Your task to perform on an android device: turn on location history Image 0: 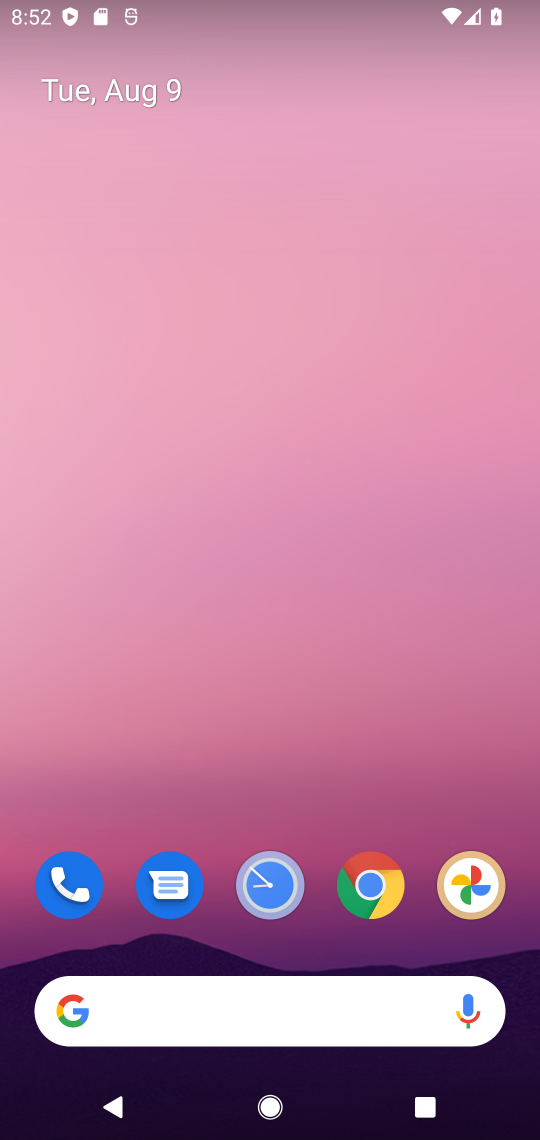
Step 0: press home button
Your task to perform on an android device: turn on location history Image 1: 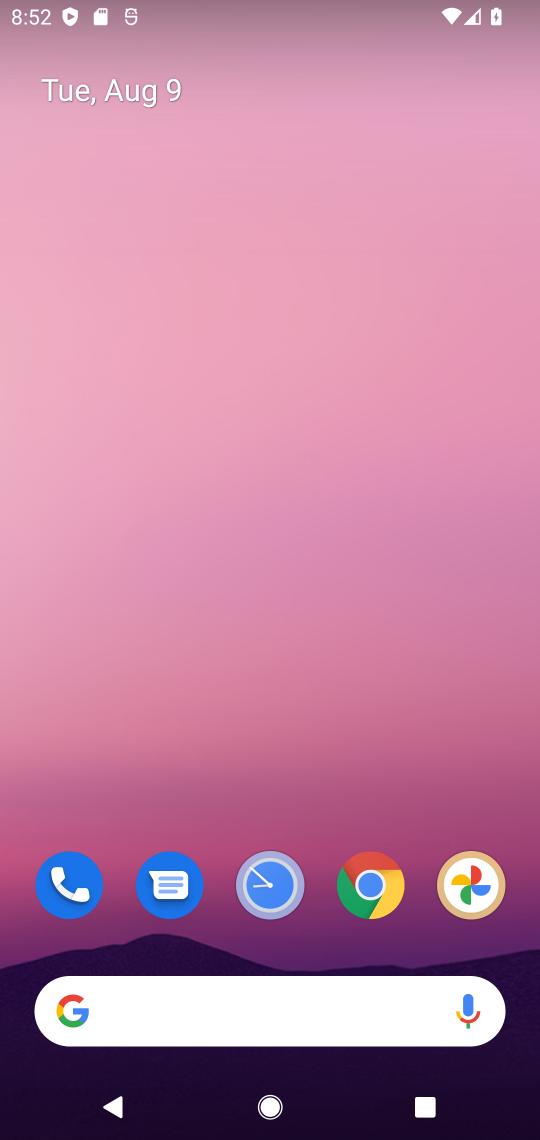
Step 1: drag from (333, 919) to (363, 180)
Your task to perform on an android device: turn on location history Image 2: 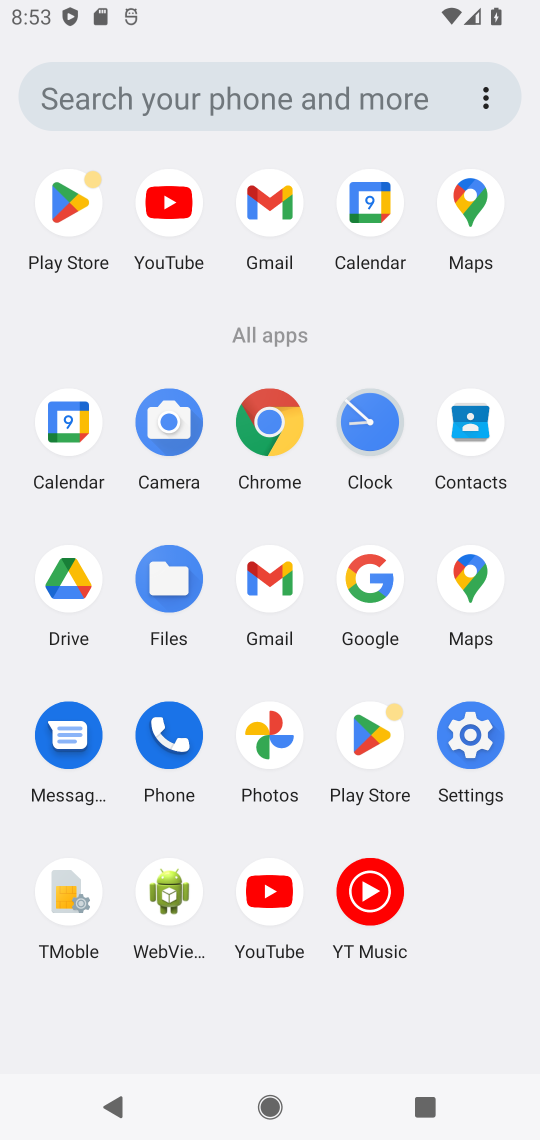
Step 2: click (466, 743)
Your task to perform on an android device: turn on location history Image 3: 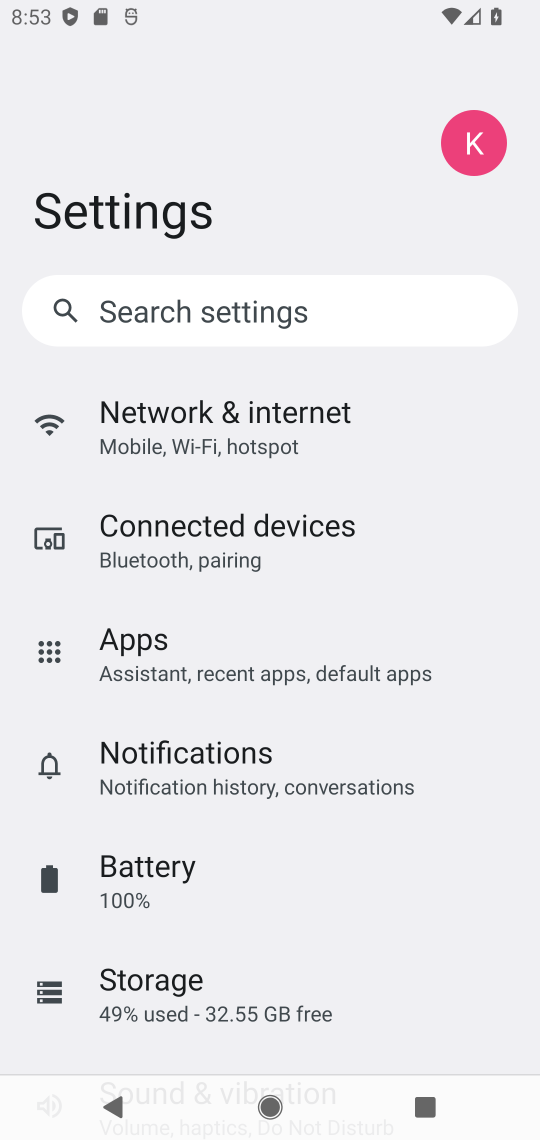
Step 3: drag from (262, 978) to (270, 345)
Your task to perform on an android device: turn on location history Image 4: 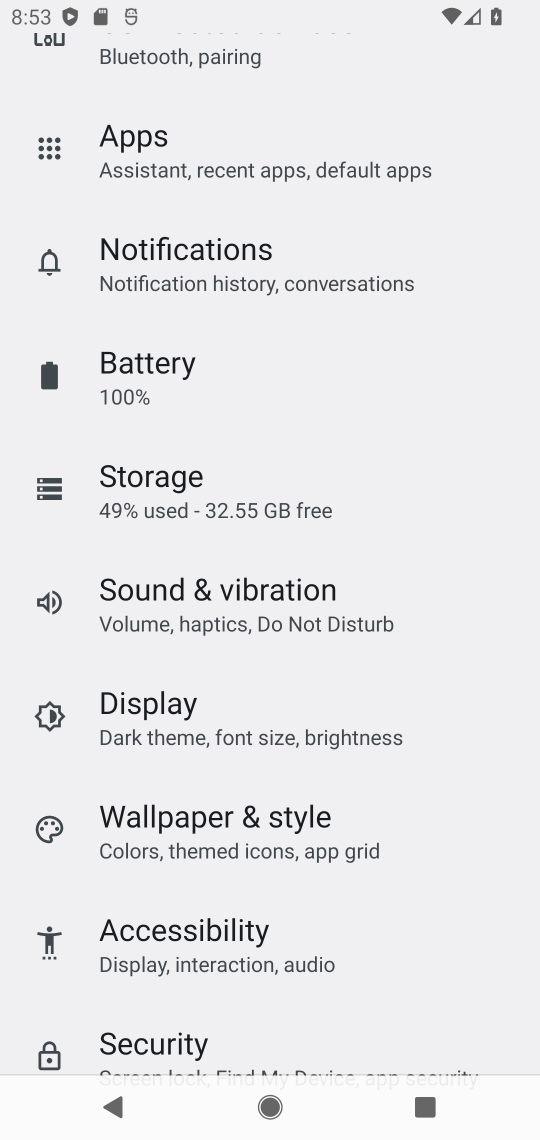
Step 4: drag from (262, 999) to (285, 317)
Your task to perform on an android device: turn on location history Image 5: 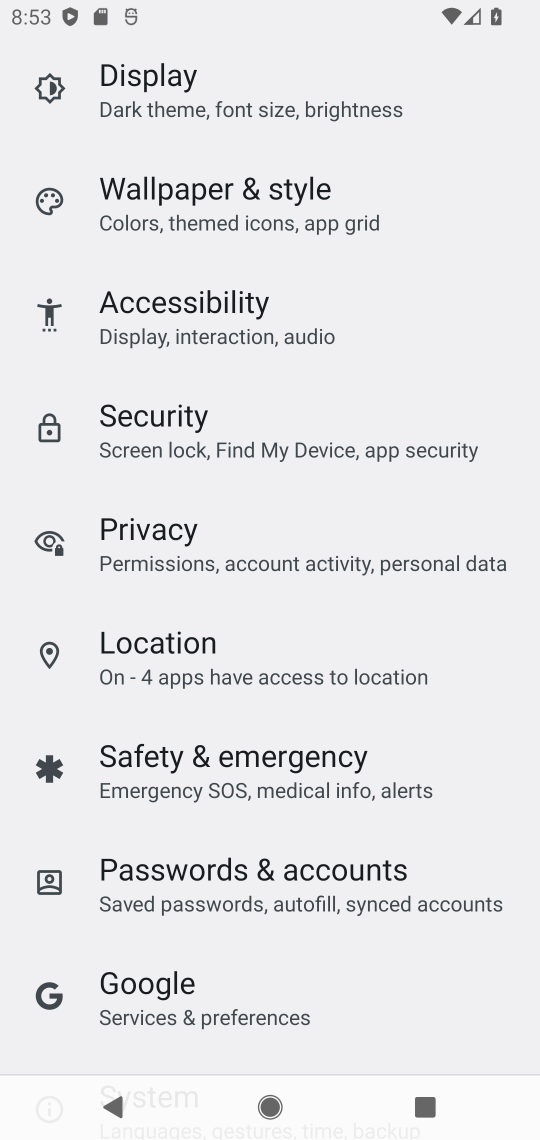
Step 5: click (233, 638)
Your task to perform on an android device: turn on location history Image 6: 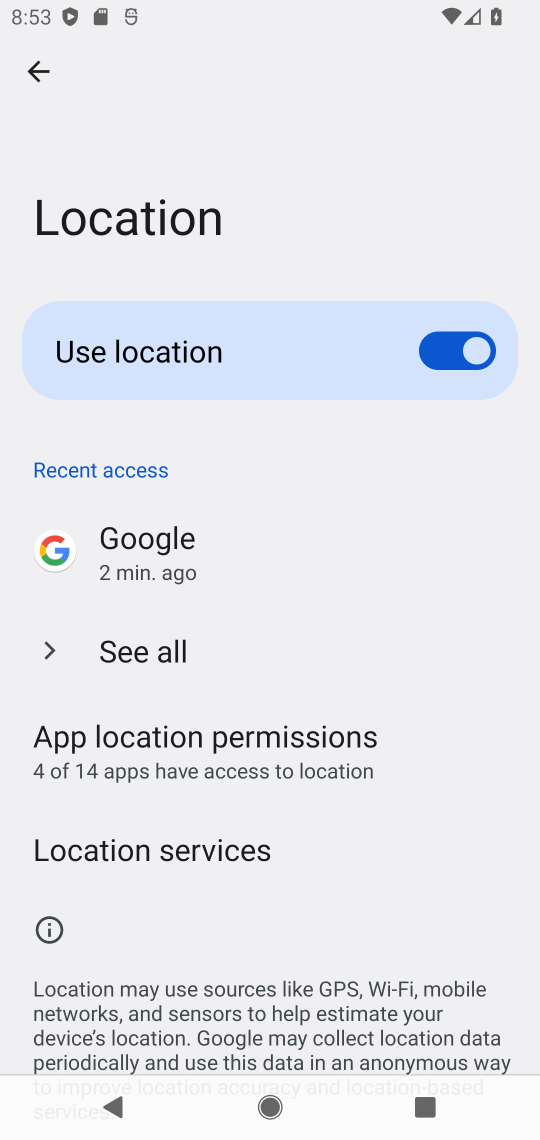
Step 6: click (219, 860)
Your task to perform on an android device: turn on location history Image 7: 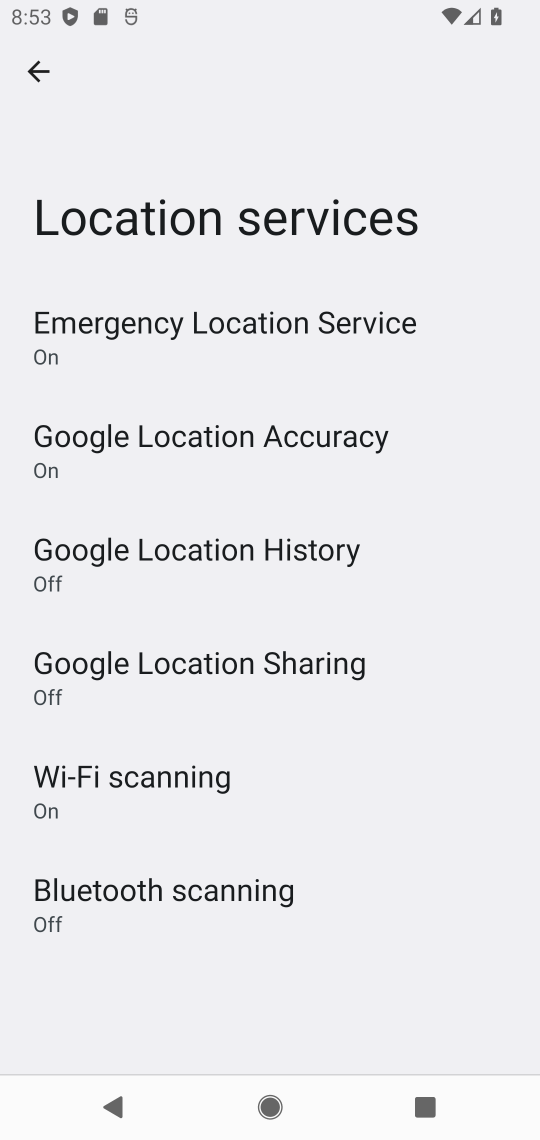
Step 7: click (216, 564)
Your task to perform on an android device: turn on location history Image 8: 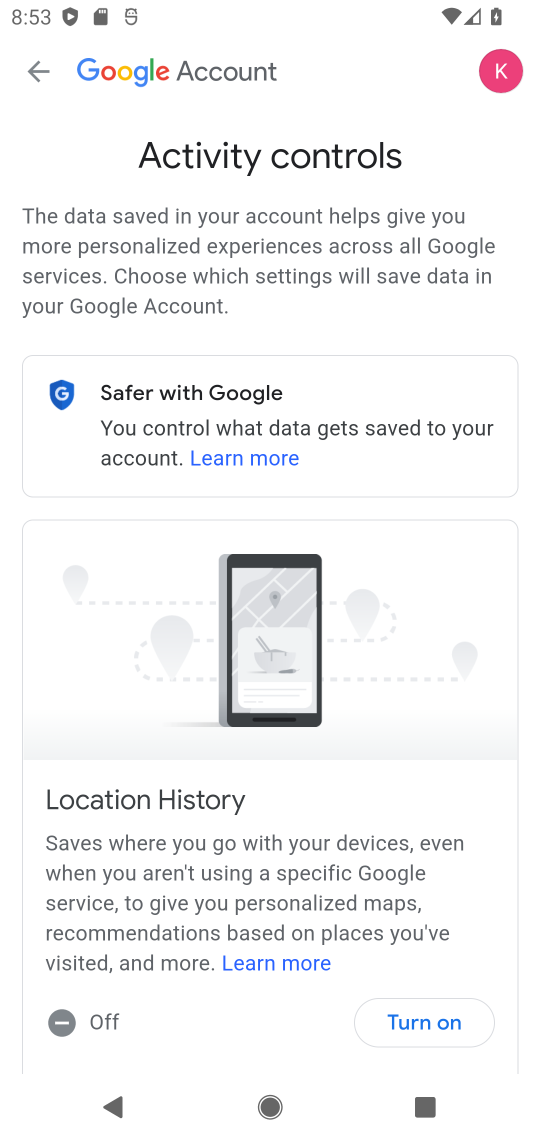
Step 8: click (437, 1020)
Your task to perform on an android device: turn on location history Image 9: 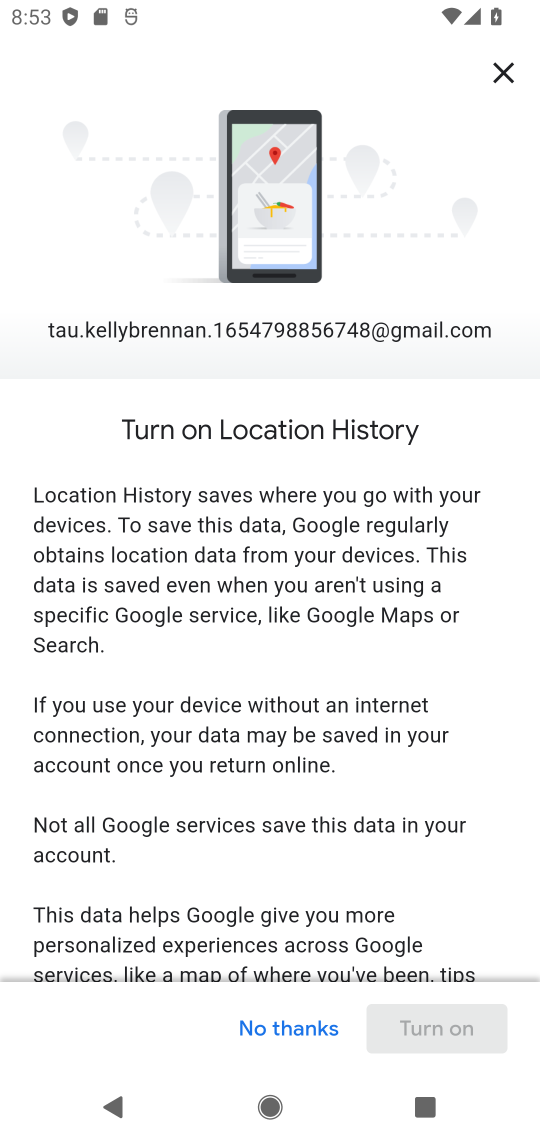
Step 9: drag from (364, 829) to (420, 203)
Your task to perform on an android device: turn on location history Image 10: 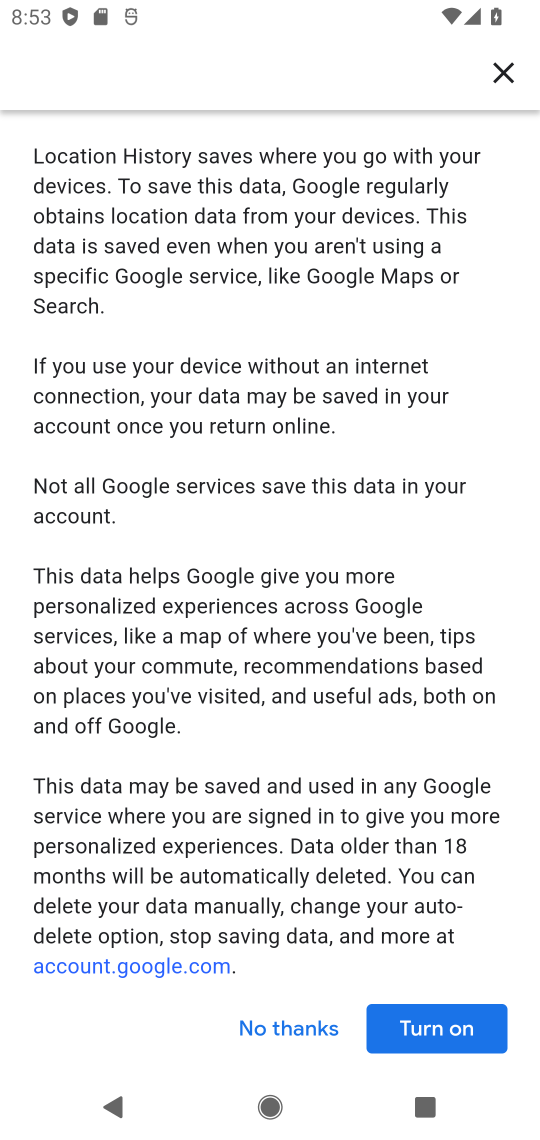
Step 10: click (443, 1028)
Your task to perform on an android device: turn on location history Image 11: 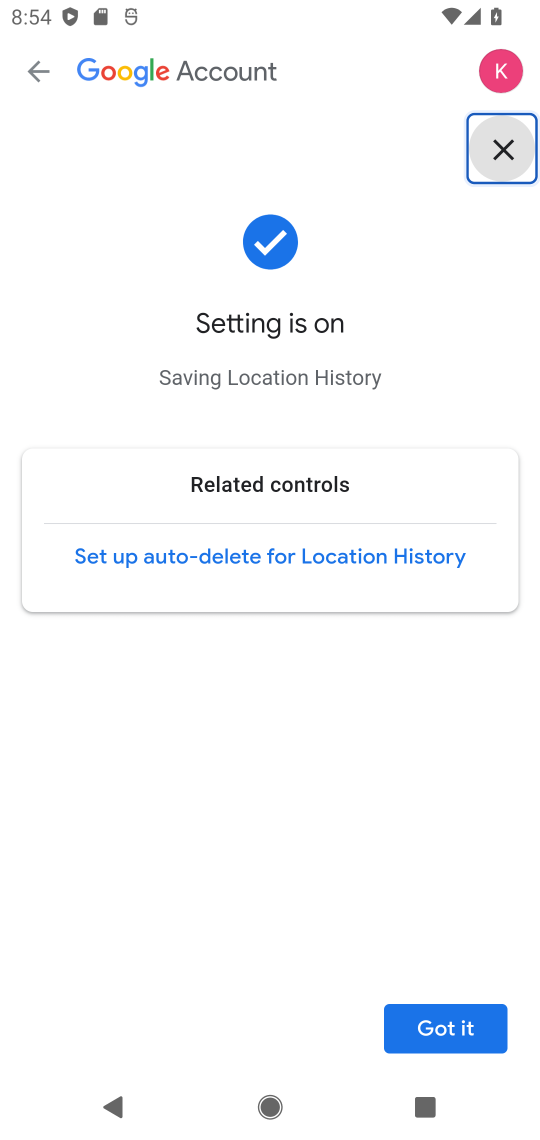
Step 11: click (453, 1029)
Your task to perform on an android device: turn on location history Image 12: 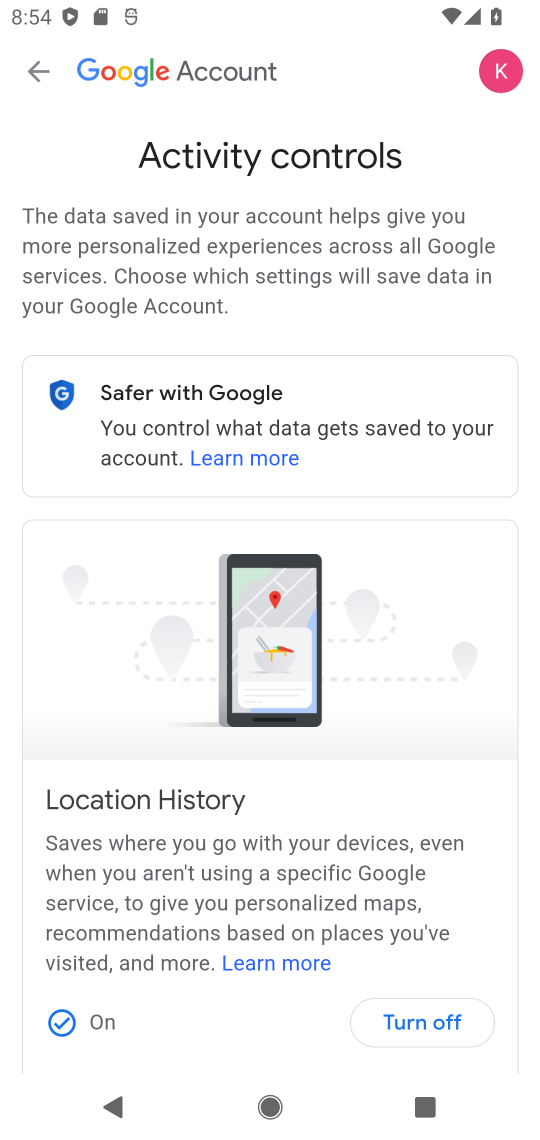
Step 12: task complete